Your task to perform on an android device: Open calendar and show me the fourth week of next month Image 0: 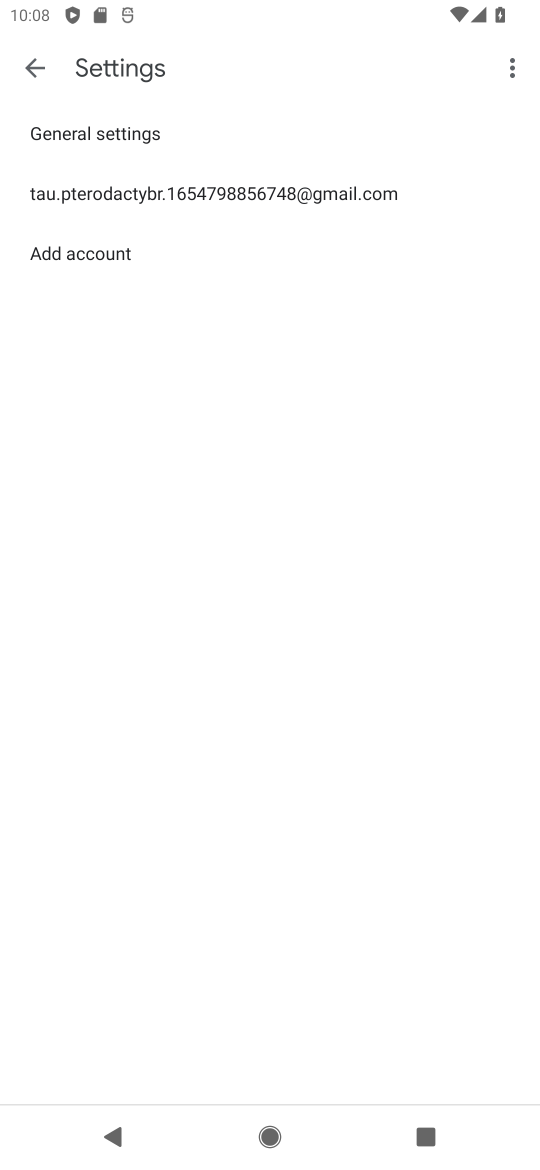
Step 0: press back button
Your task to perform on an android device: Open calendar and show me the fourth week of next month Image 1: 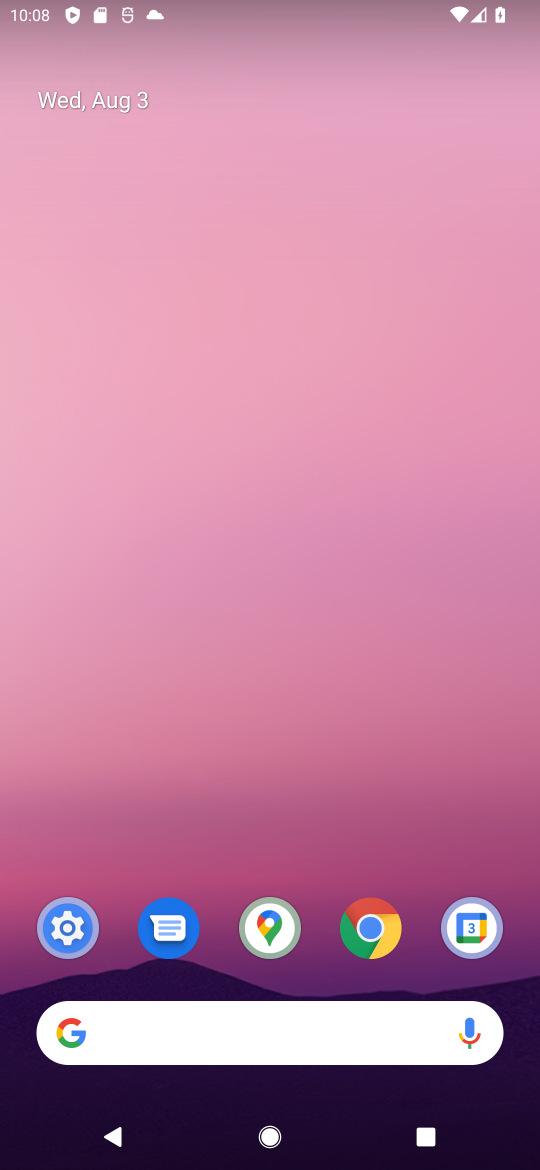
Step 1: click (482, 930)
Your task to perform on an android device: Open calendar and show me the fourth week of next month Image 2: 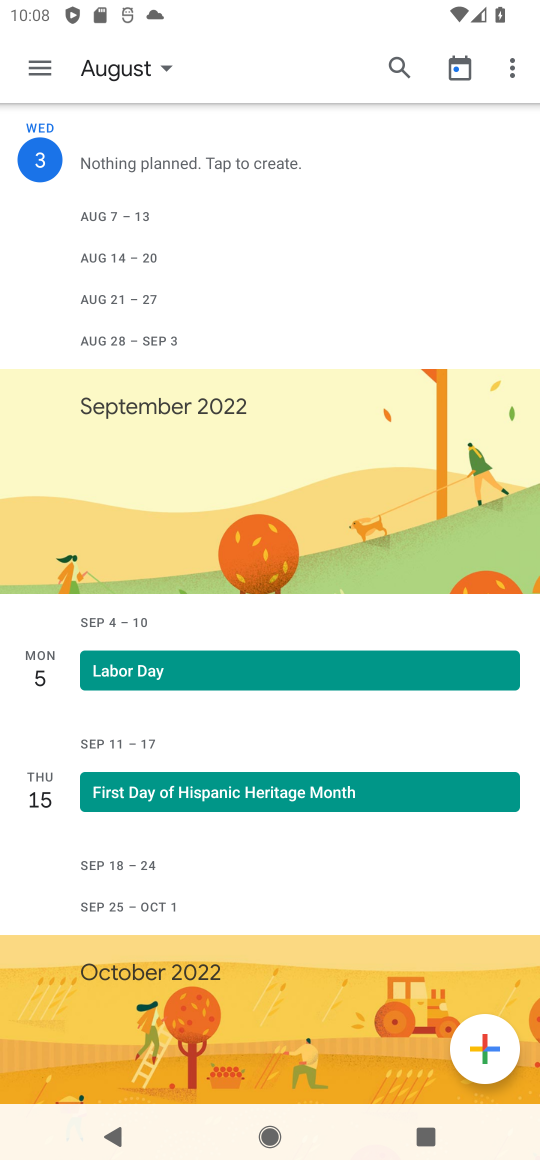
Step 2: click (29, 77)
Your task to perform on an android device: Open calendar and show me the fourth week of next month Image 3: 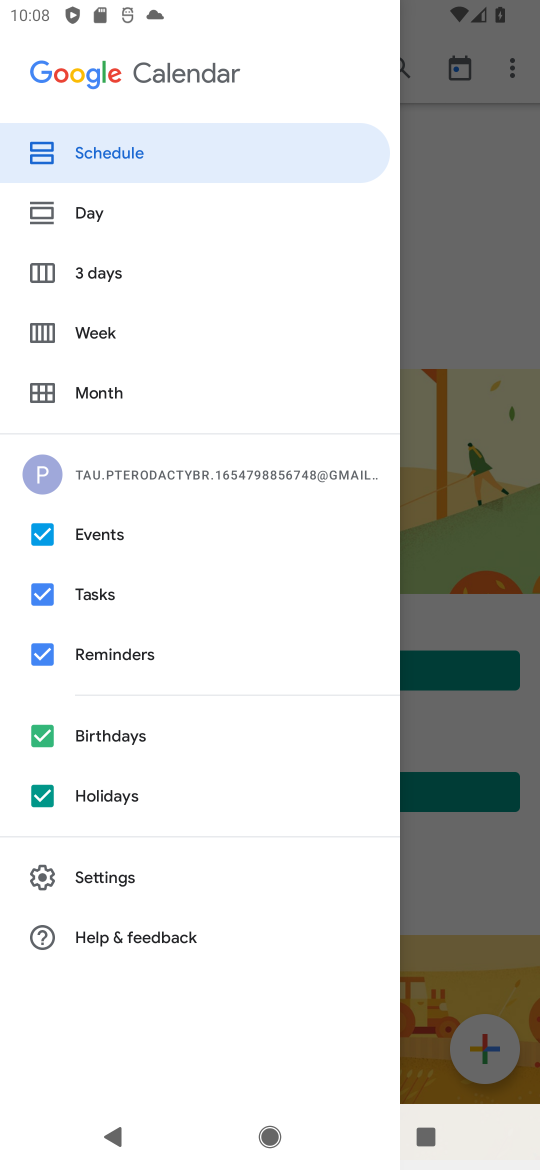
Step 3: click (105, 329)
Your task to perform on an android device: Open calendar and show me the fourth week of next month Image 4: 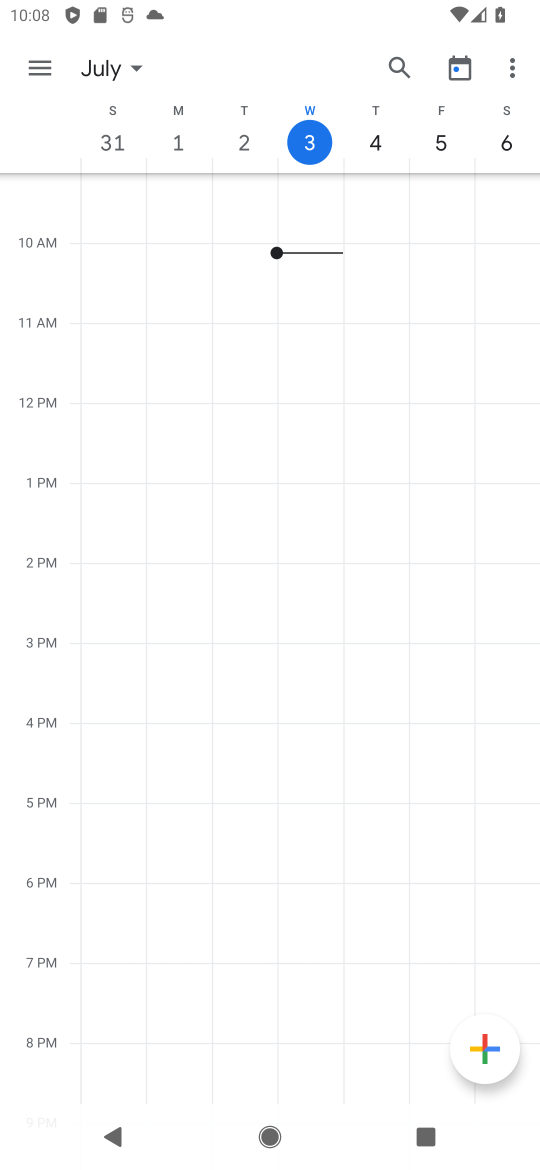
Step 4: click (135, 75)
Your task to perform on an android device: Open calendar and show me the fourth week of next month Image 5: 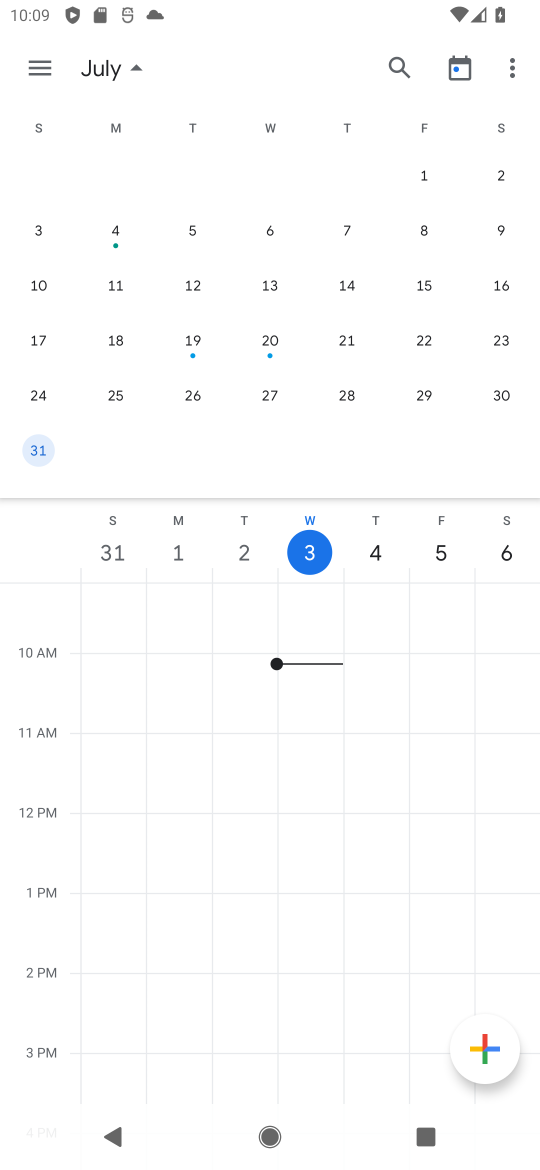
Step 5: click (122, 64)
Your task to perform on an android device: Open calendar and show me the fourth week of next month Image 6: 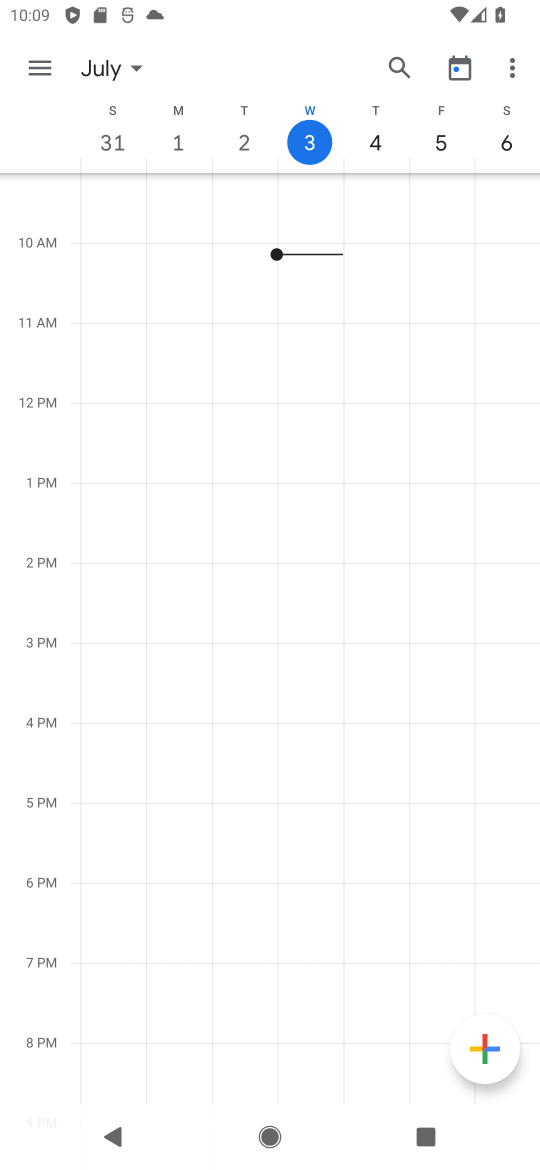
Step 6: click (127, 64)
Your task to perform on an android device: Open calendar and show me the fourth week of next month Image 7: 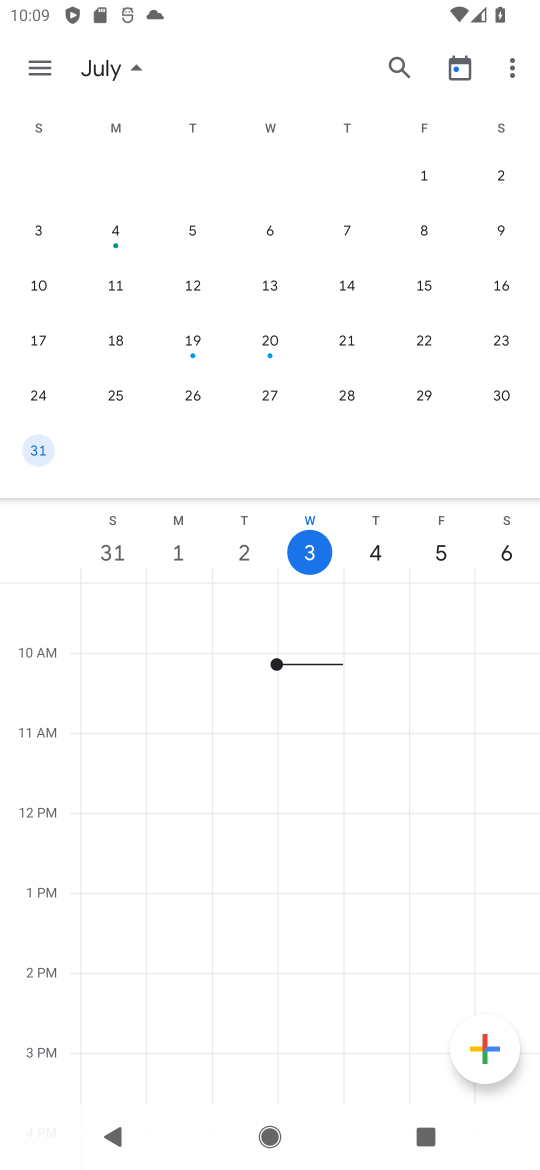
Step 7: drag from (448, 356) to (22, 355)
Your task to perform on an android device: Open calendar and show me the fourth week of next month Image 8: 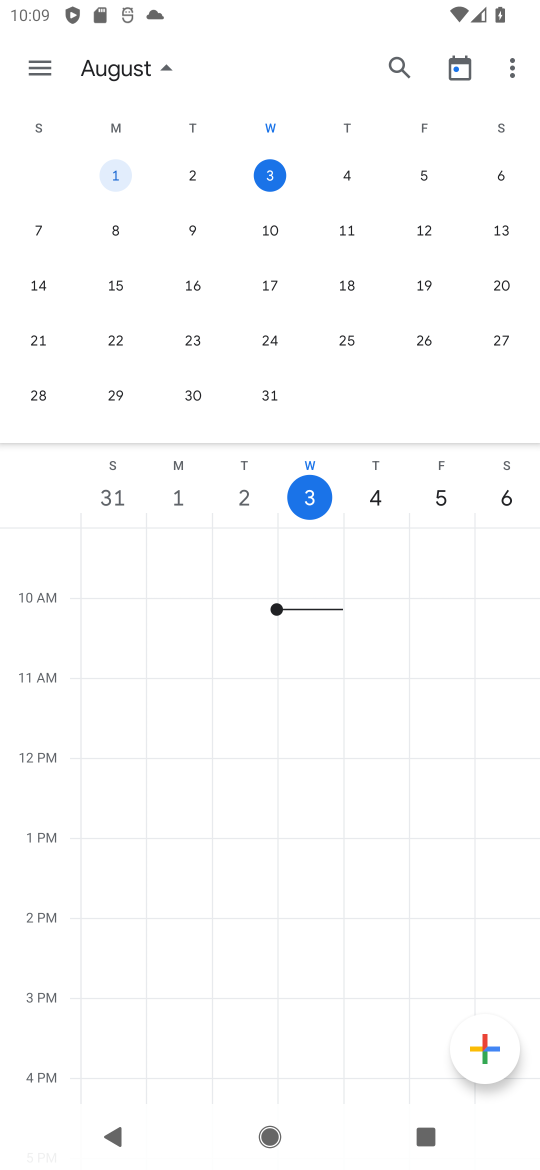
Step 8: drag from (436, 355) to (9, 339)
Your task to perform on an android device: Open calendar and show me the fourth week of next month Image 9: 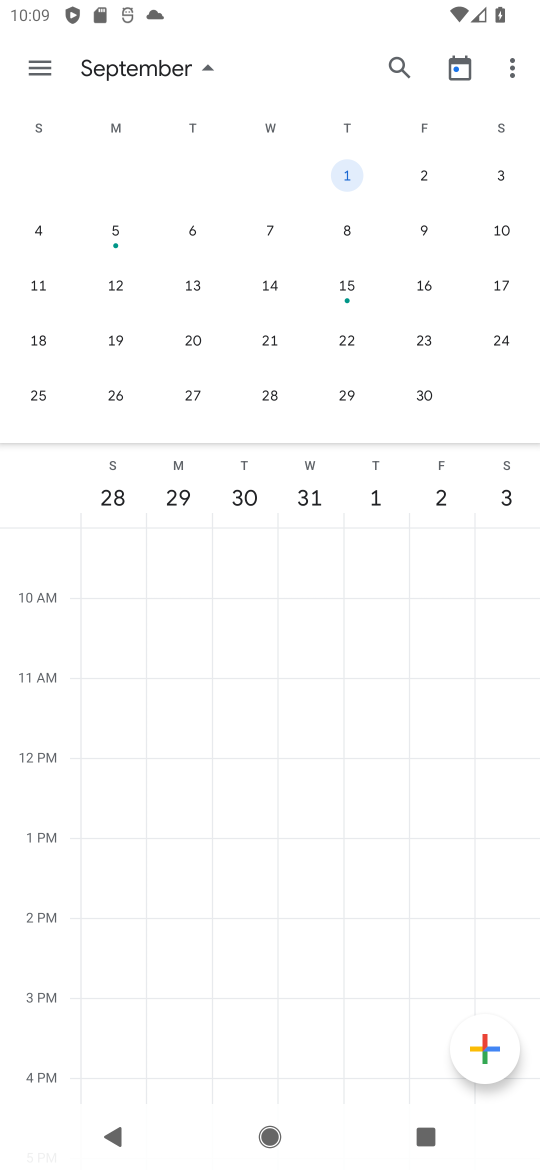
Step 9: click (268, 386)
Your task to perform on an android device: Open calendar and show me the fourth week of next month Image 10: 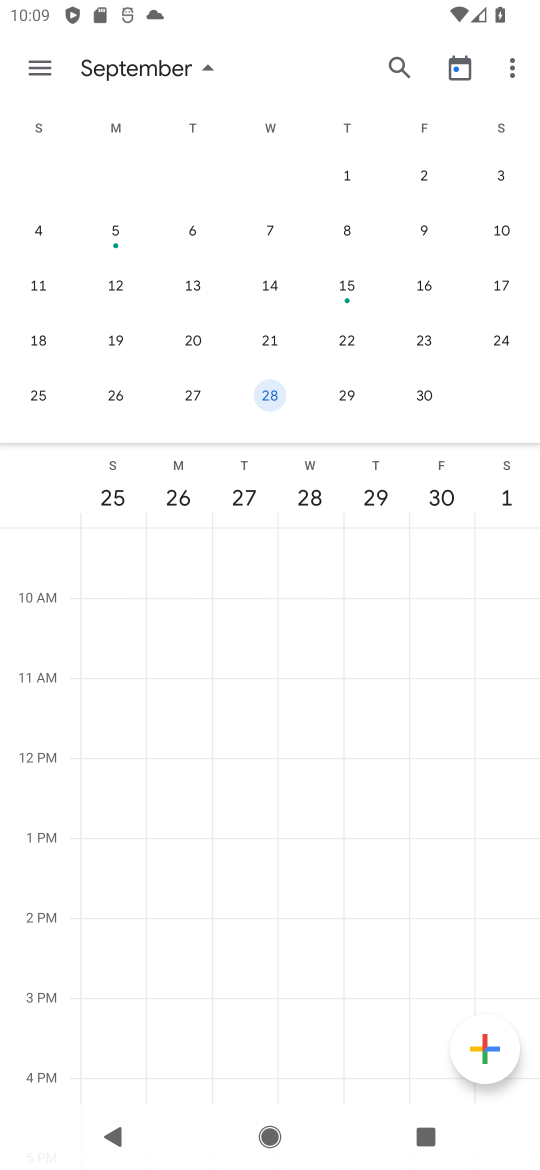
Step 10: task complete